Your task to perform on an android device: Check the weather Image 0: 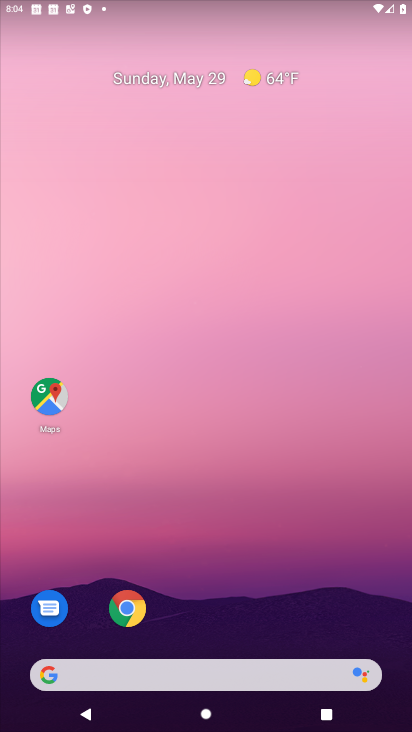
Step 0: click (259, 667)
Your task to perform on an android device: Check the weather Image 1: 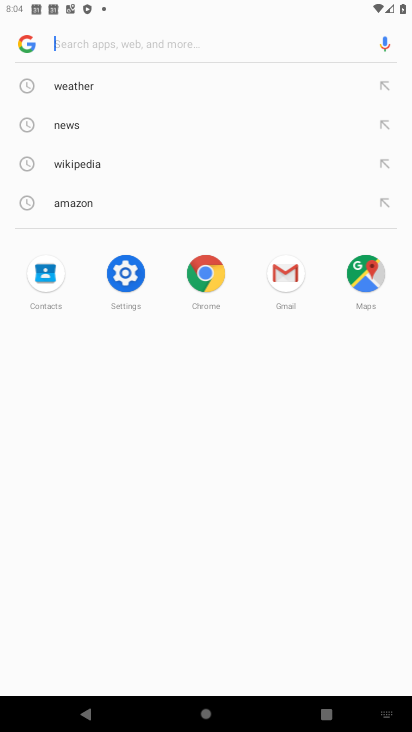
Step 1: click (68, 81)
Your task to perform on an android device: Check the weather Image 2: 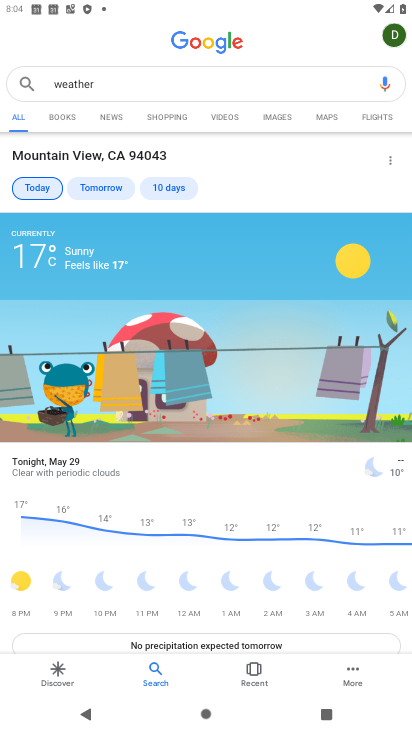
Step 2: task complete